Your task to perform on an android device: delete location history Image 0: 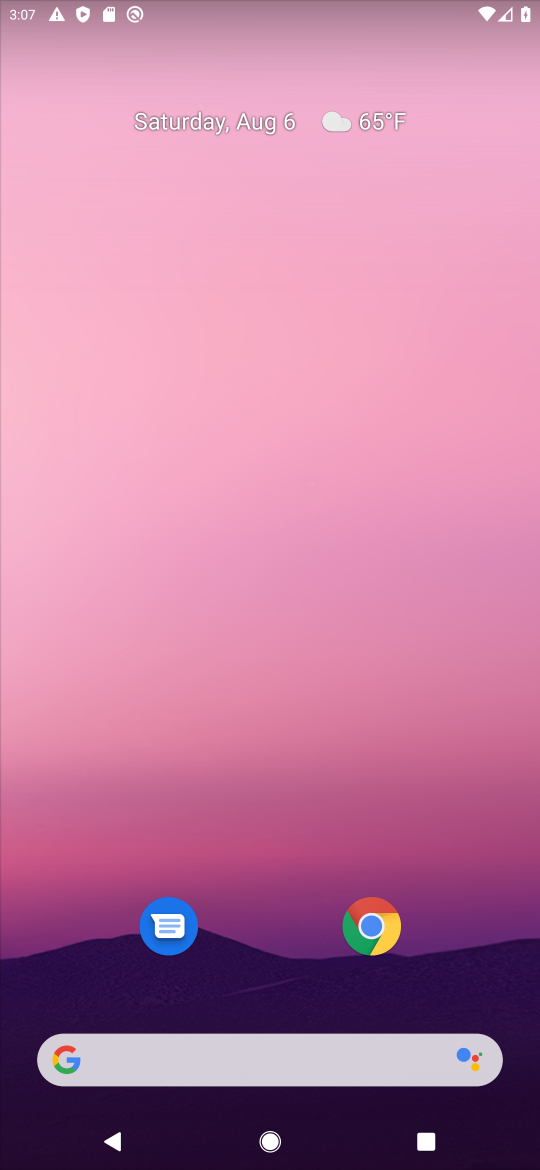
Step 0: drag from (268, 911) to (236, 313)
Your task to perform on an android device: delete location history Image 1: 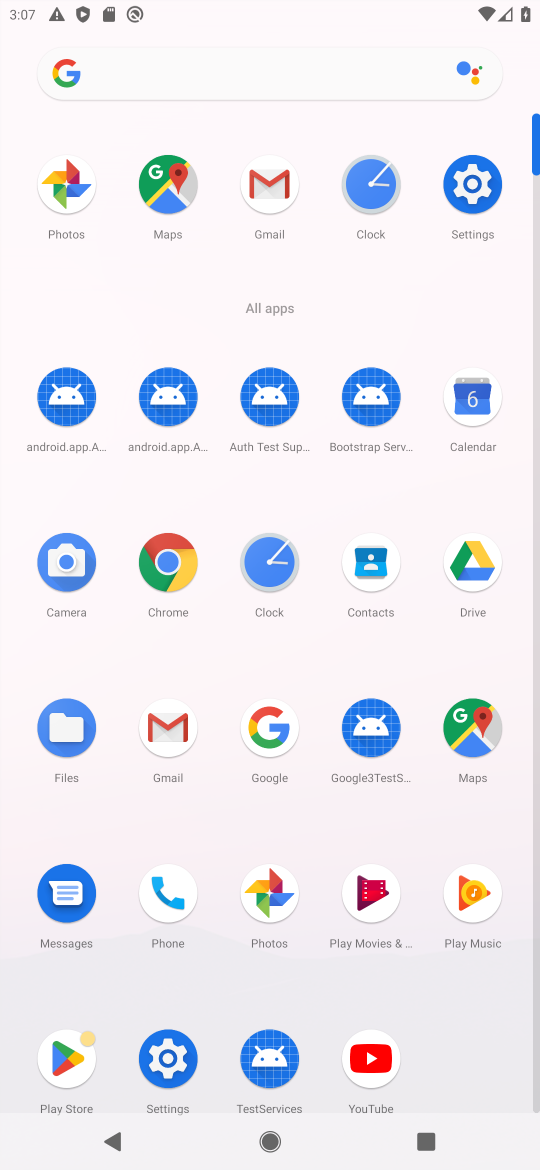
Step 1: click (468, 705)
Your task to perform on an android device: delete location history Image 2: 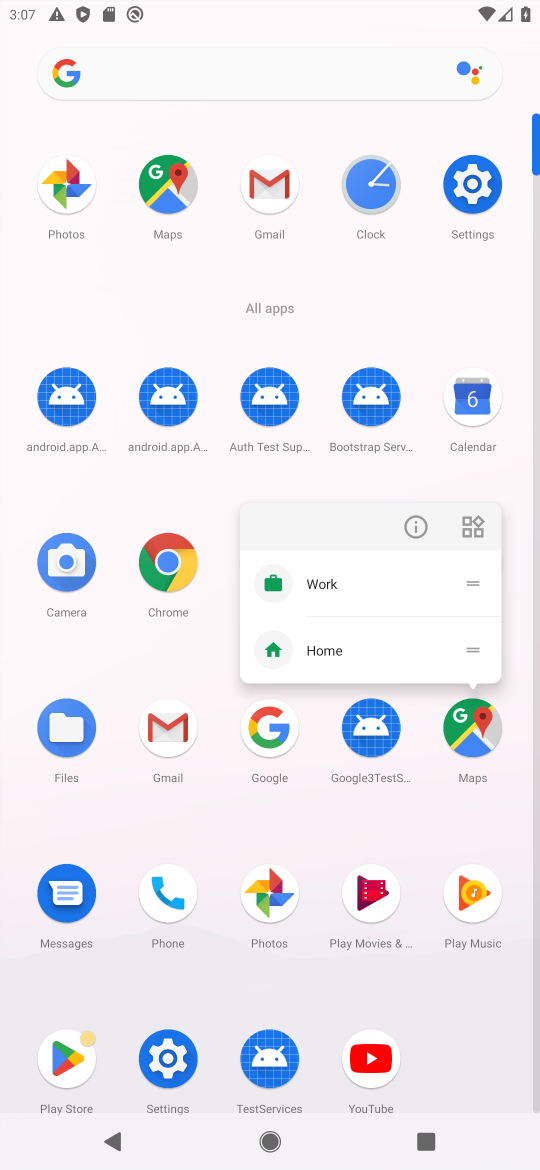
Step 2: click (468, 705)
Your task to perform on an android device: delete location history Image 3: 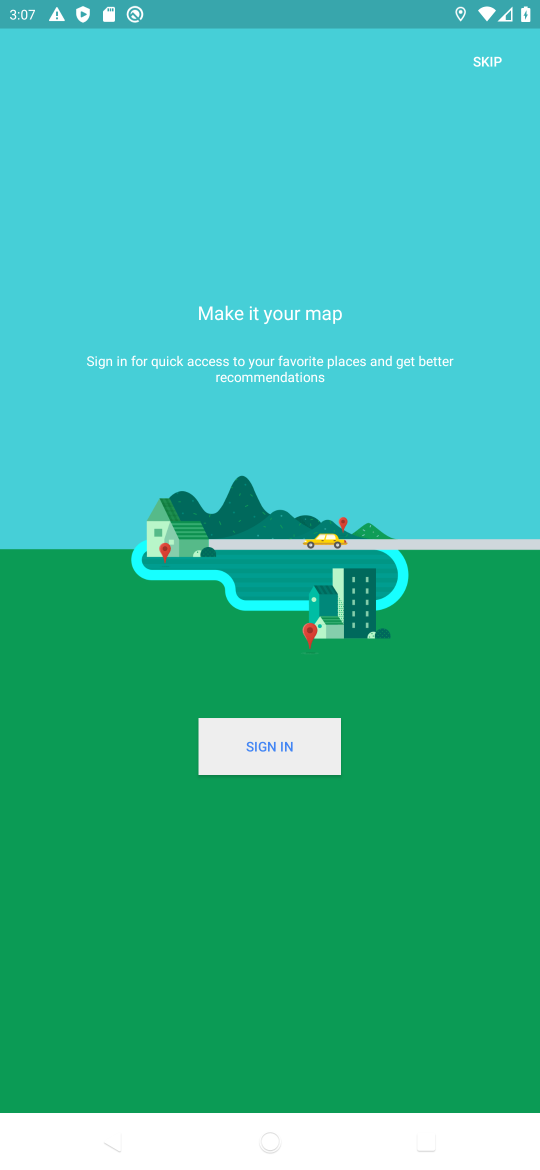
Step 3: click (480, 61)
Your task to perform on an android device: delete location history Image 4: 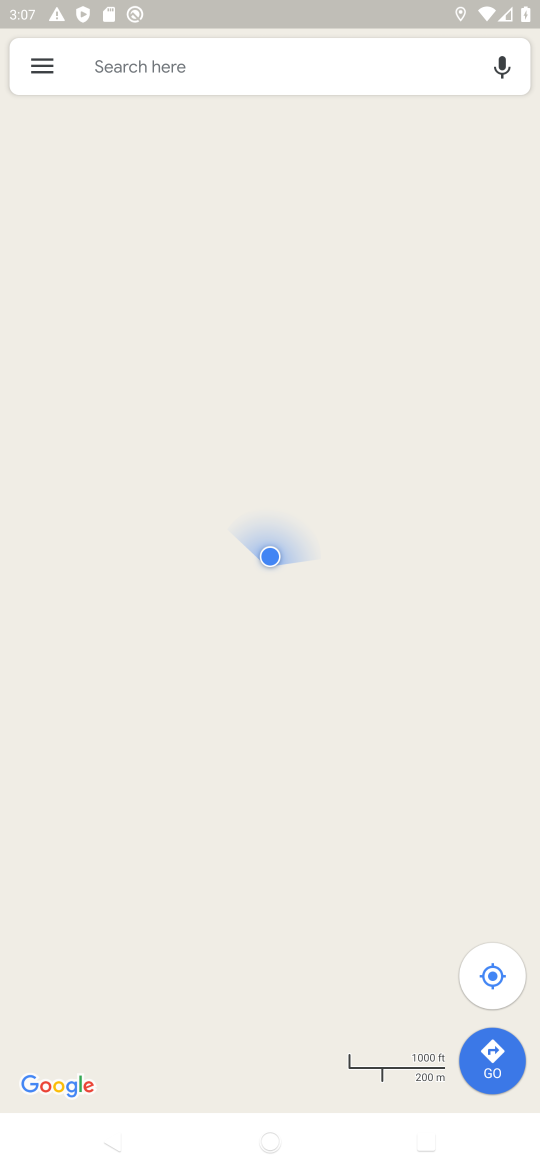
Step 4: click (41, 60)
Your task to perform on an android device: delete location history Image 5: 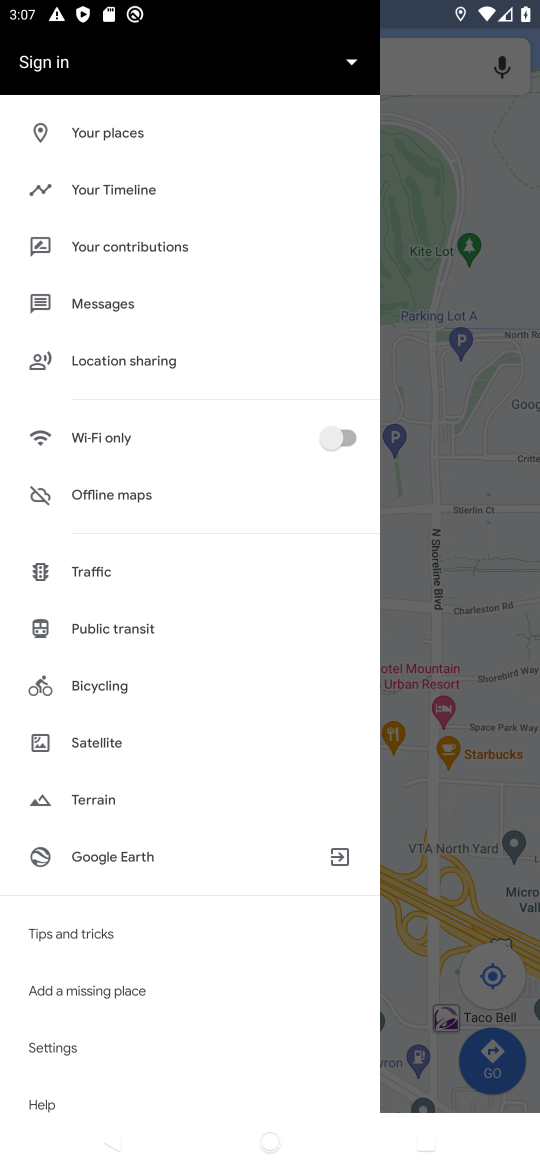
Step 5: click (122, 190)
Your task to perform on an android device: delete location history Image 6: 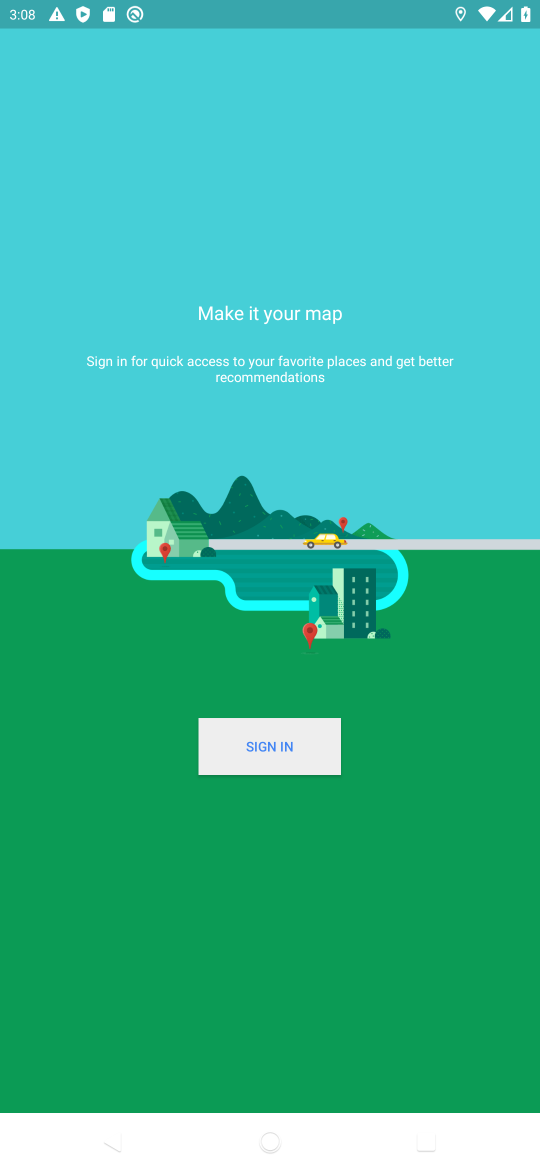
Step 6: click (287, 747)
Your task to perform on an android device: delete location history Image 7: 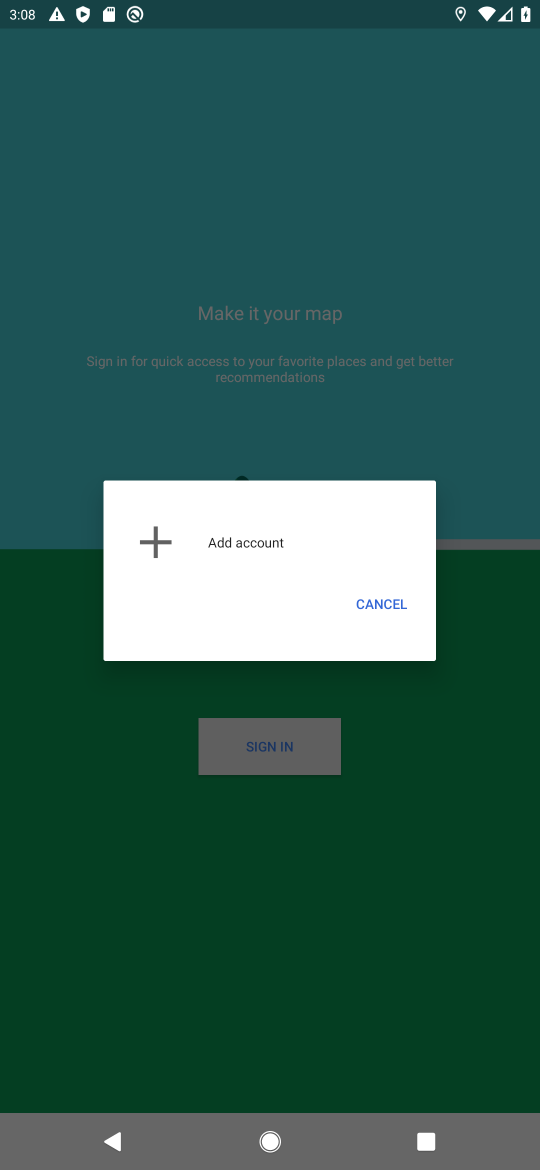
Step 7: click (369, 610)
Your task to perform on an android device: delete location history Image 8: 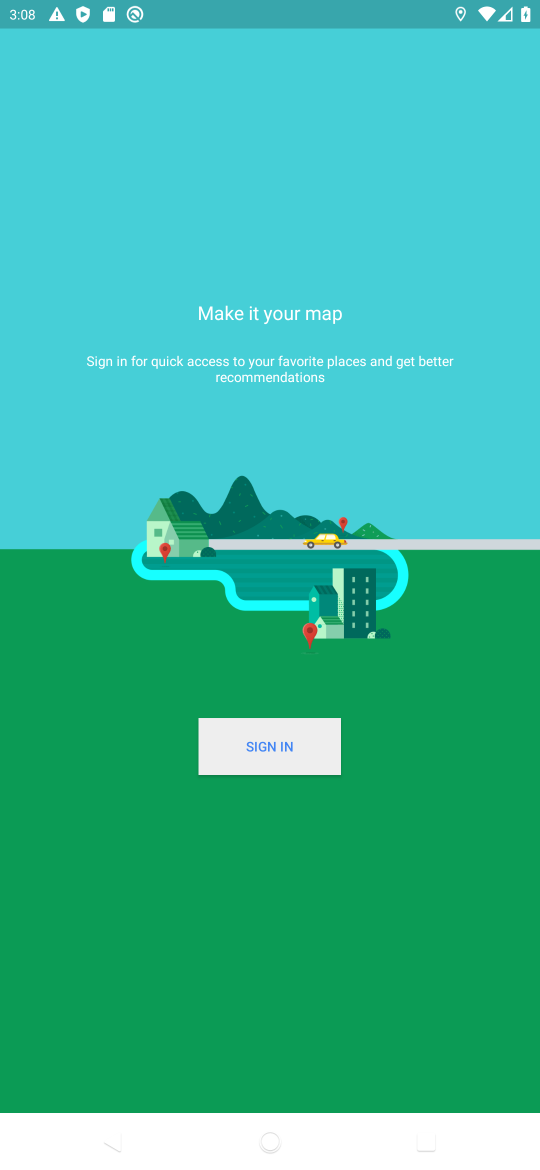
Step 8: click (464, 20)
Your task to perform on an android device: delete location history Image 9: 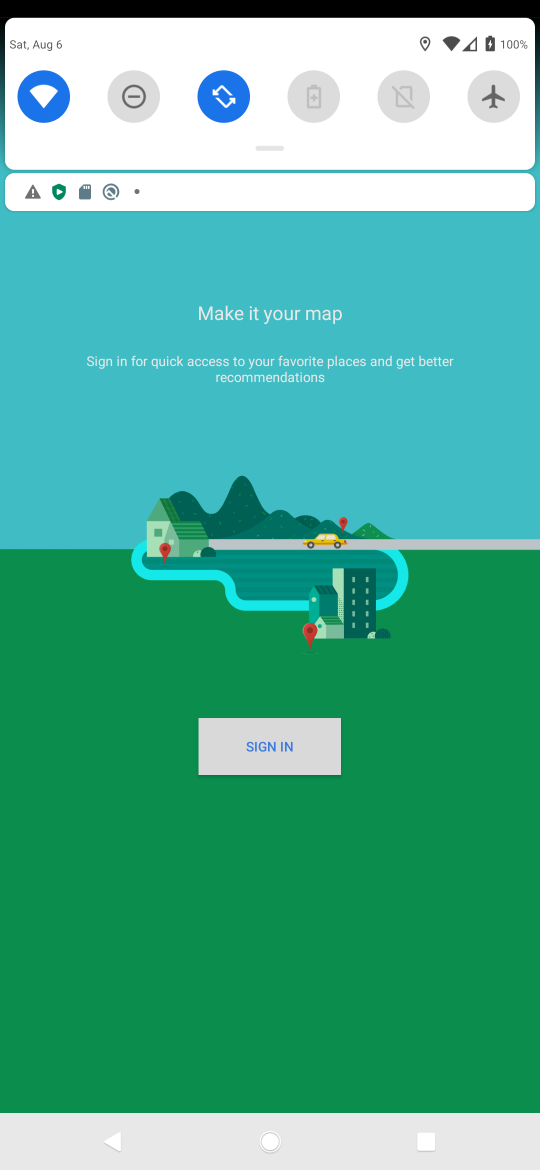
Step 9: task complete